Your task to perform on an android device: Open Android settings Image 0: 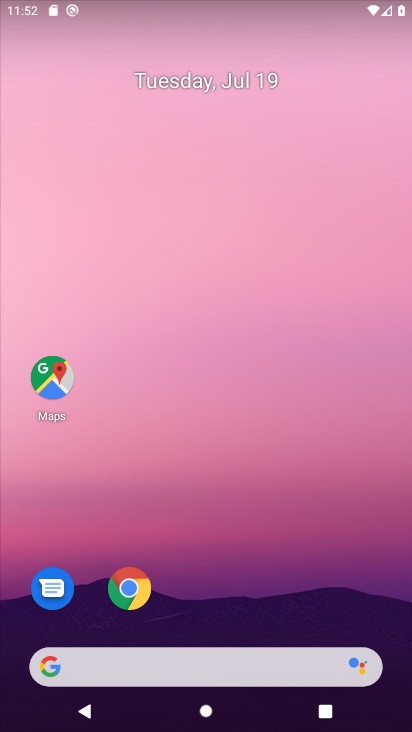
Step 0: drag from (261, 550) to (287, 12)
Your task to perform on an android device: Open Android settings Image 1: 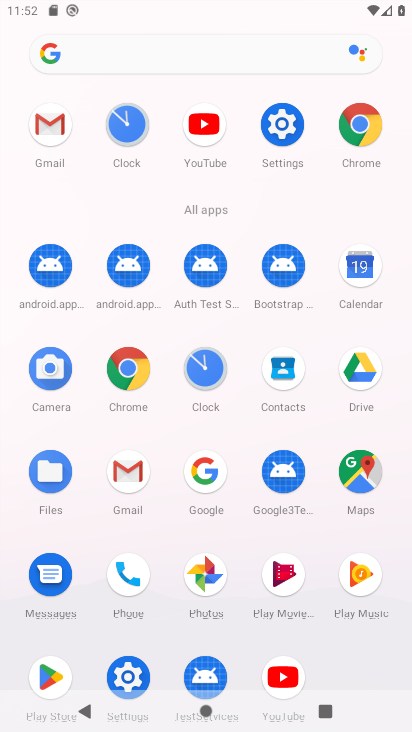
Step 1: click (275, 144)
Your task to perform on an android device: Open Android settings Image 2: 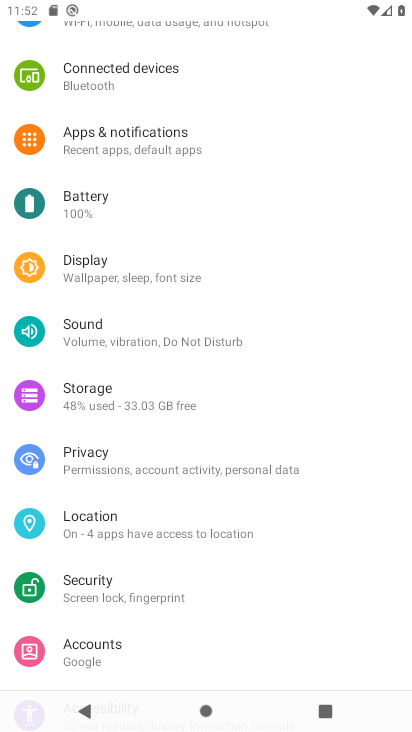
Step 2: drag from (131, 564) to (142, 161)
Your task to perform on an android device: Open Android settings Image 3: 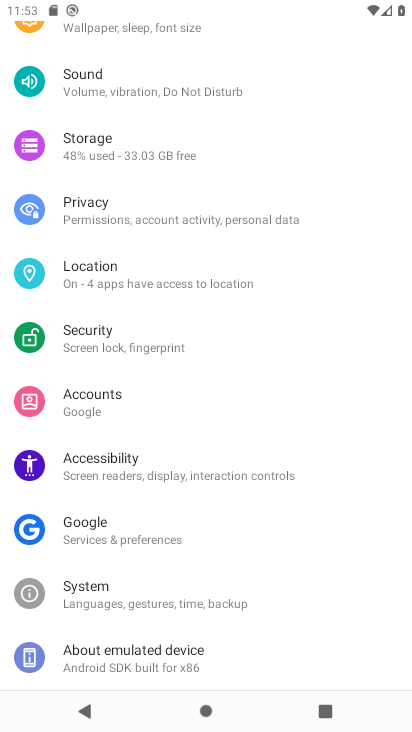
Step 3: click (97, 655)
Your task to perform on an android device: Open Android settings Image 4: 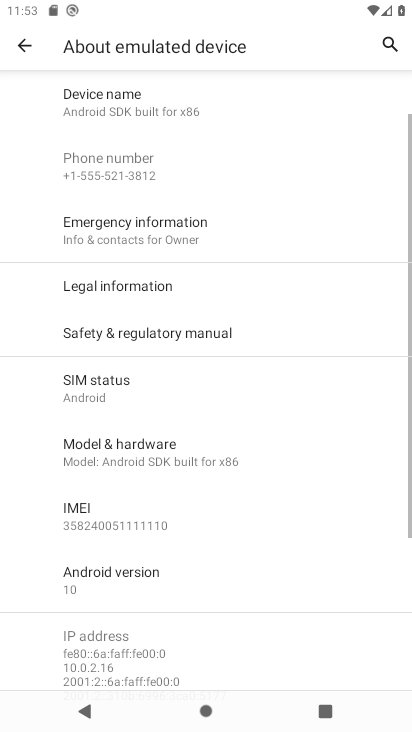
Step 4: task complete